Your task to perform on an android device: Go to Google maps Image 0: 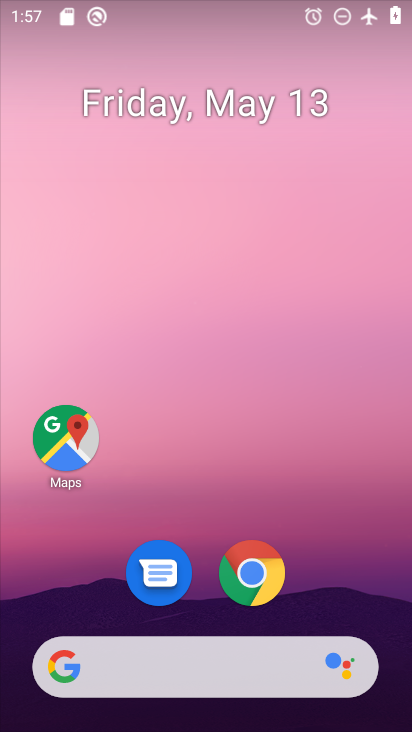
Step 0: click (68, 458)
Your task to perform on an android device: Go to Google maps Image 1: 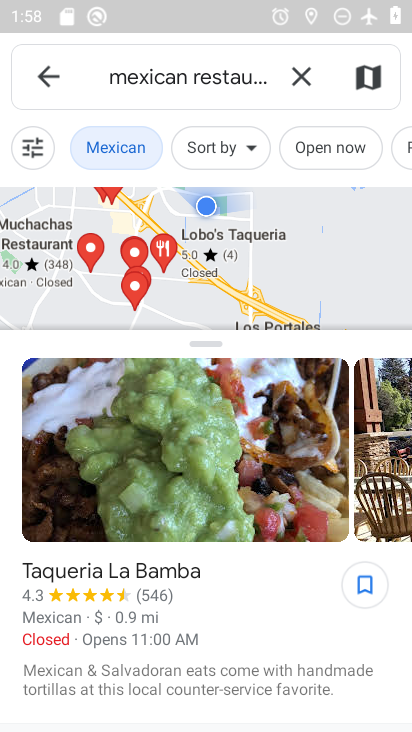
Step 1: task complete